Your task to perform on an android device: Is it going to rain tomorrow? Image 0: 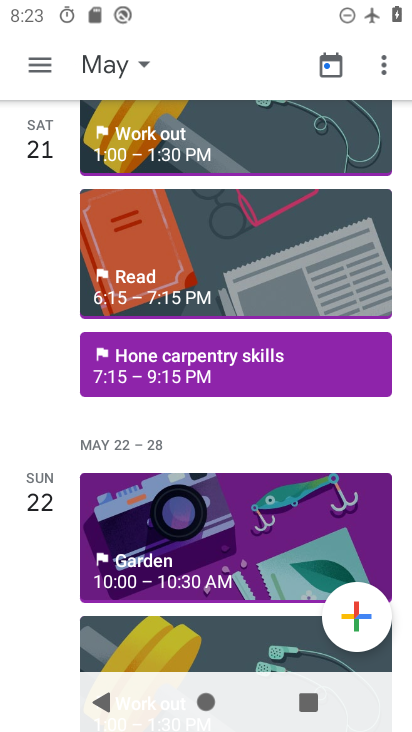
Step 0: press home button
Your task to perform on an android device: Is it going to rain tomorrow? Image 1: 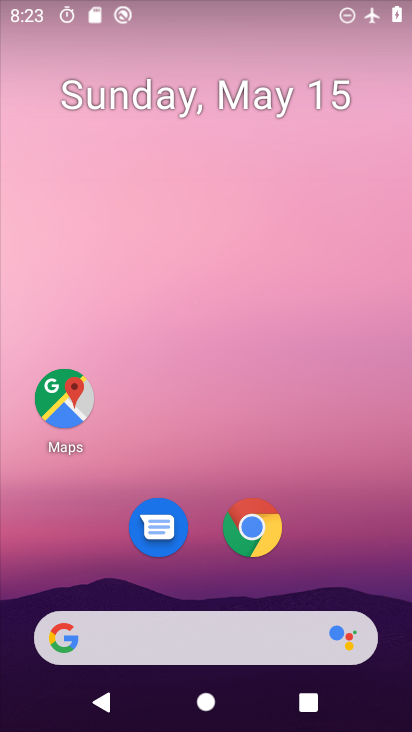
Step 1: drag from (197, 542) to (207, 80)
Your task to perform on an android device: Is it going to rain tomorrow? Image 2: 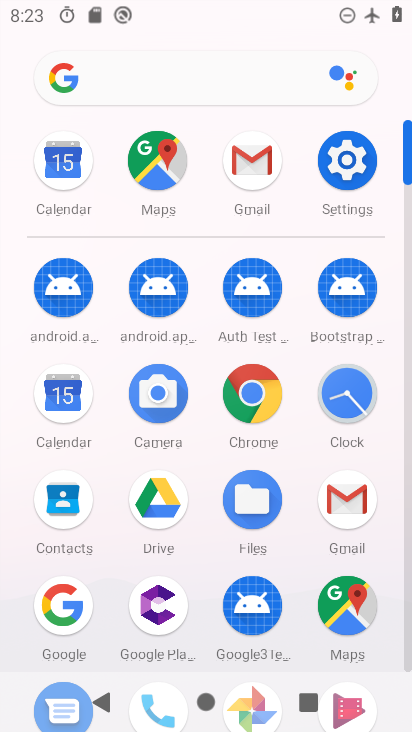
Step 2: click (71, 607)
Your task to perform on an android device: Is it going to rain tomorrow? Image 3: 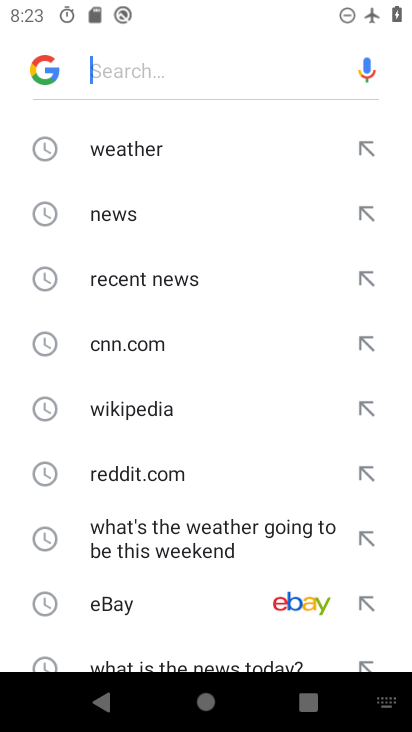
Step 3: click (126, 152)
Your task to perform on an android device: Is it going to rain tomorrow? Image 4: 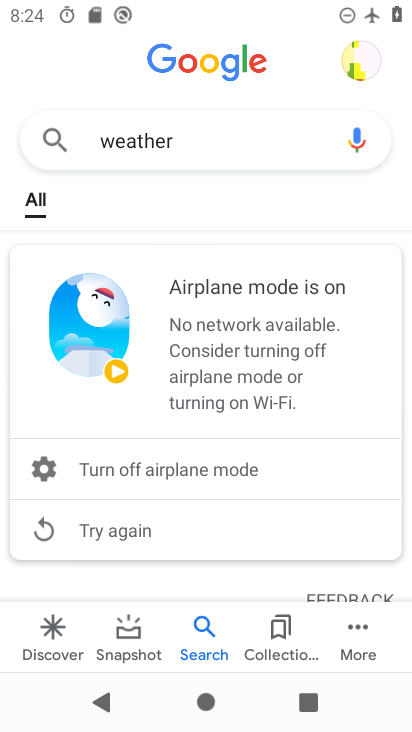
Step 4: task complete